Your task to perform on an android device: Show me popular videos on Youtube Image 0: 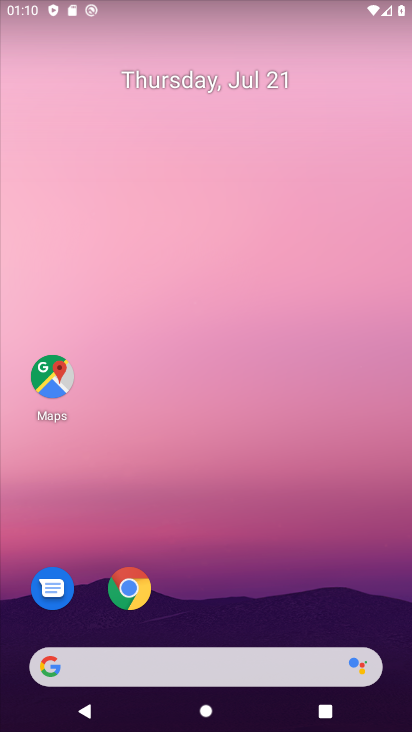
Step 0: drag from (284, 606) to (279, 181)
Your task to perform on an android device: Show me popular videos on Youtube Image 1: 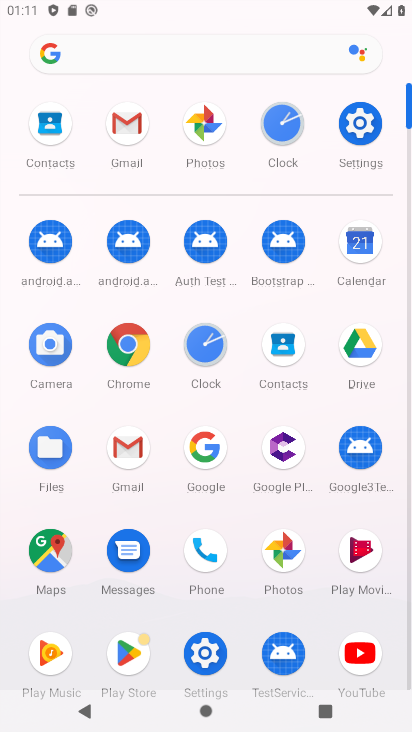
Step 1: click (352, 645)
Your task to perform on an android device: Show me popular videos on Youtube Image 2: 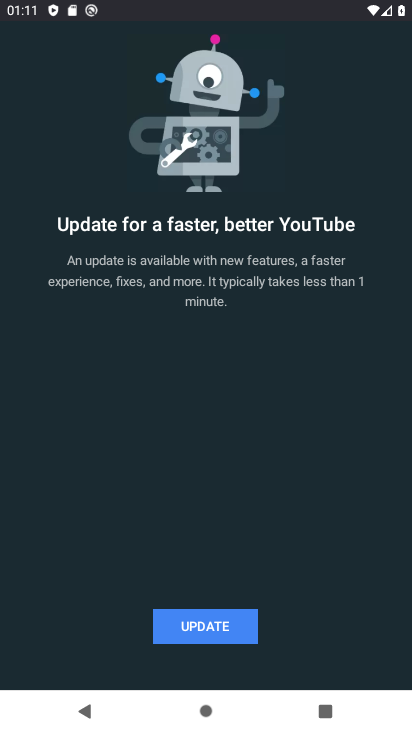
Step 2: click (242, 627)
Your task to perform on an android device: Show me popular videos on Youtube Image 3: 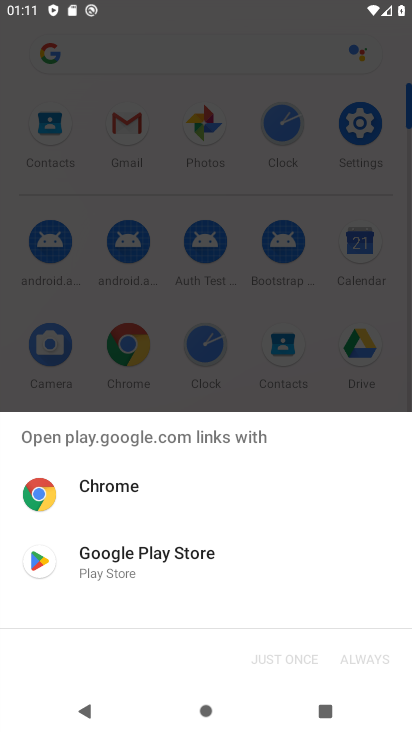
Step 3: click (114, 558)
Your task to perform on an android device: Show me popular videos on Youtube Image 4: 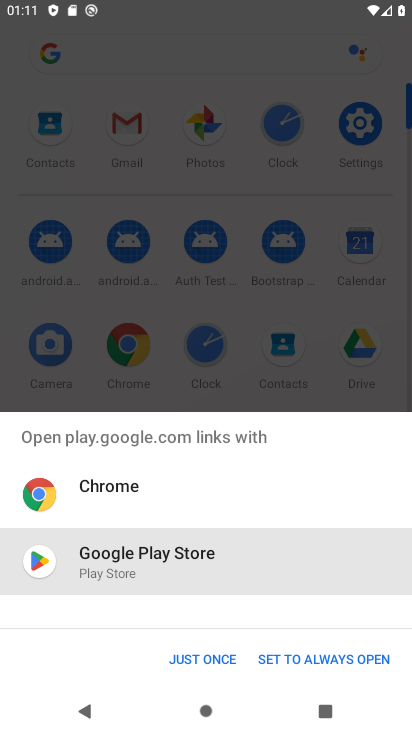
Step 4: click (211, 661)
Your task to perform on an android device: Show me popular videos on Youtube Image 5: 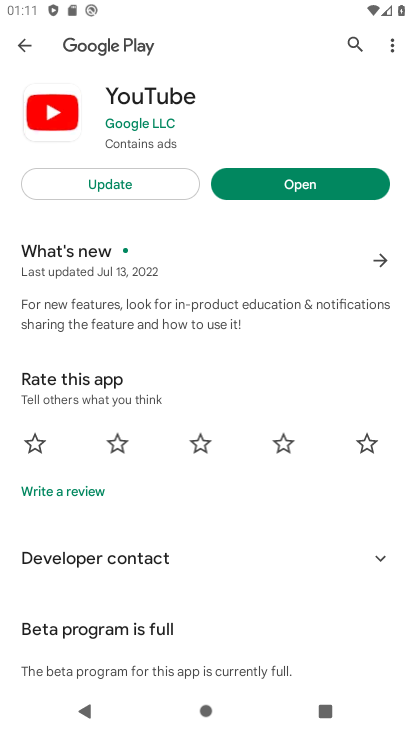
Step 5: click (135, 175)
Your task to perform on an android device: Show me popular videos on Youtube Image 6: 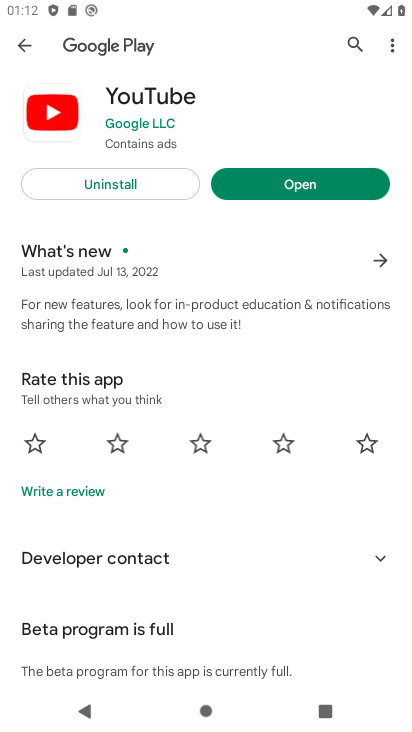
Step 6: click (287, 180)
Your task to perform on an android device: Show me popular videos on Youtube Image 7: 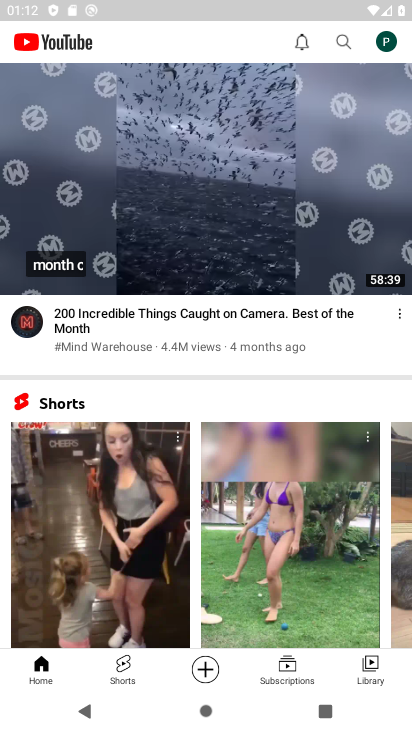
Step 7: drag from (182, 169) to (237, 335)
Your task to perform on an android device: Show me popular videos on Youtube Image 8: 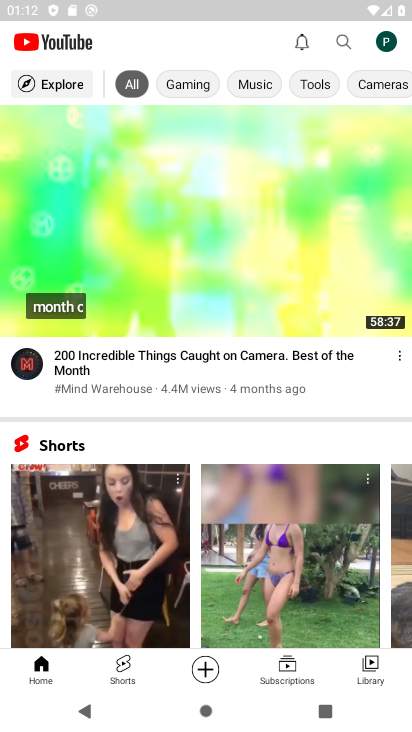
Step 8: click (64, 87)
Your task to perform on an android device: Show me popular videos on Youtube Image 9: 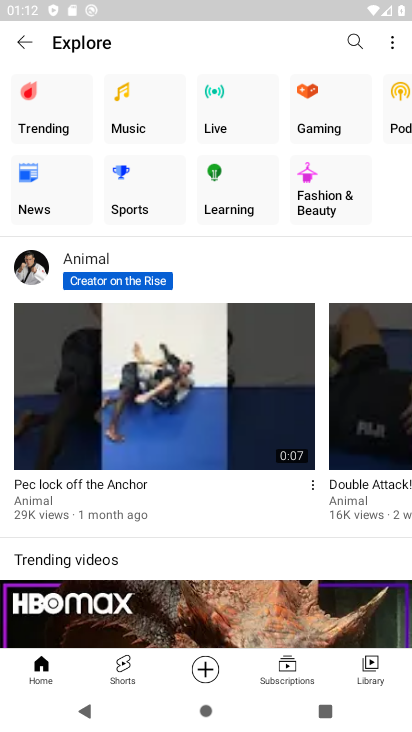
Step 9: click (58, 95)
Your task to perform on an android device: Show me popular videos on Youtube Image 10: 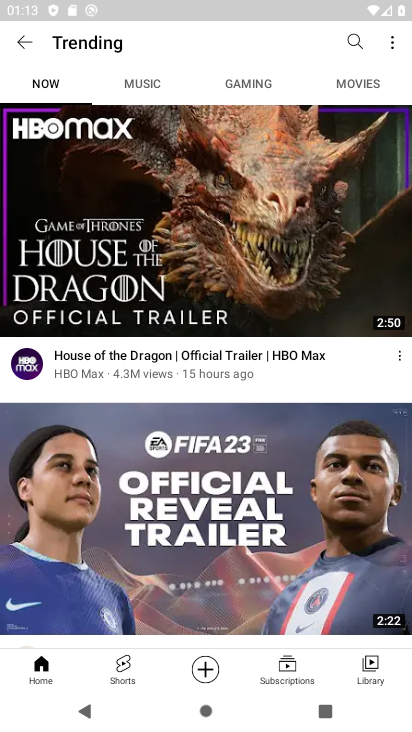
Step 10: drag from (255, 509) to (141, 22)
Your task to perform on an android device: Show me popular videos on Youtube Image 11: 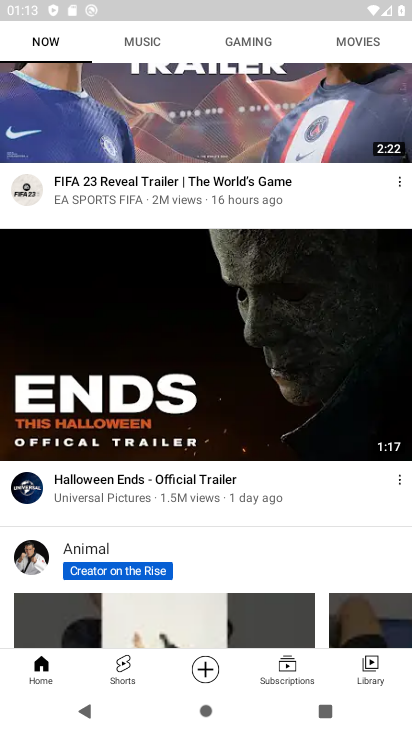
Step 11: click (153, 47)
Your task to perform on an android device: Show me popular videos on Youtube Image 12: 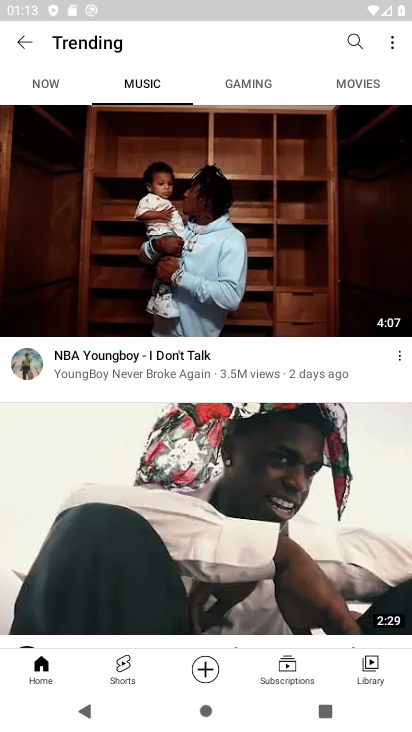
Step 12: click (39, 86)
Your task to perform on an android device: Show me popular videos on Youtube Image 13: 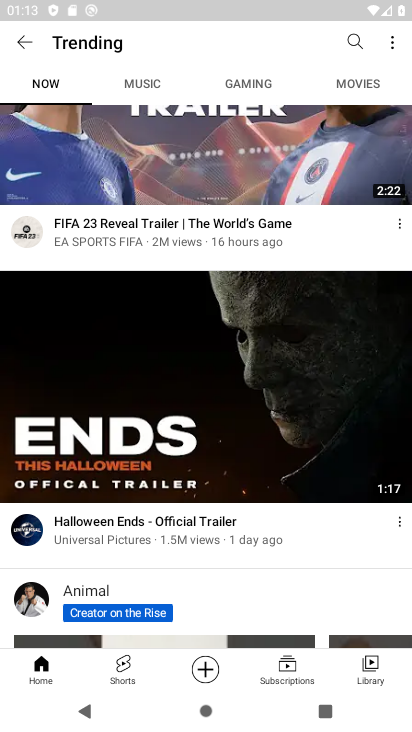
Step 13: task complete